Your task to perform on an android device: Add dell xps to the cart on amazon.com, then select checkout. Image 0: 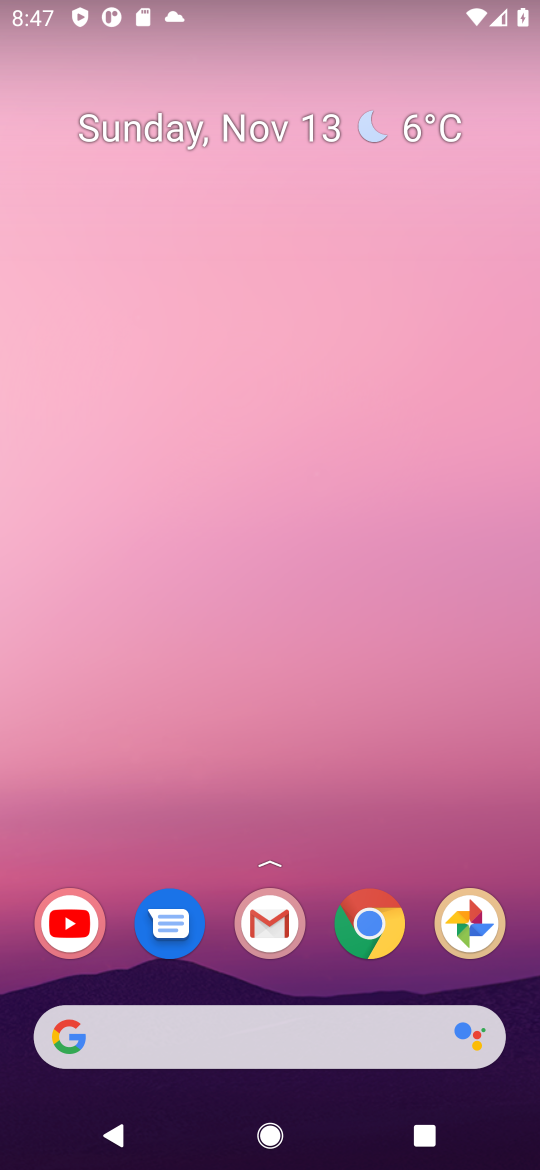
Step 0: click (346, 918)
Your task to perform on an android device: Add dell xps to the cart on amazon.com, then select checkout. Image 1: 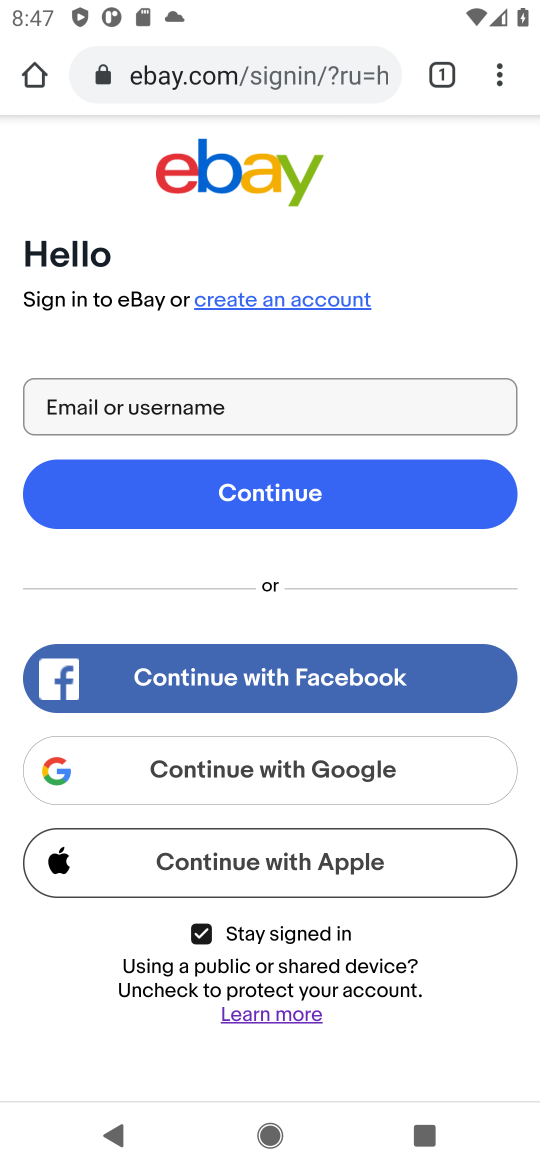
Step 1: click (198, 75)
Your task to perform on an android device: Add dell xps to the cart on amazon.com, then select checkout. Image 2: 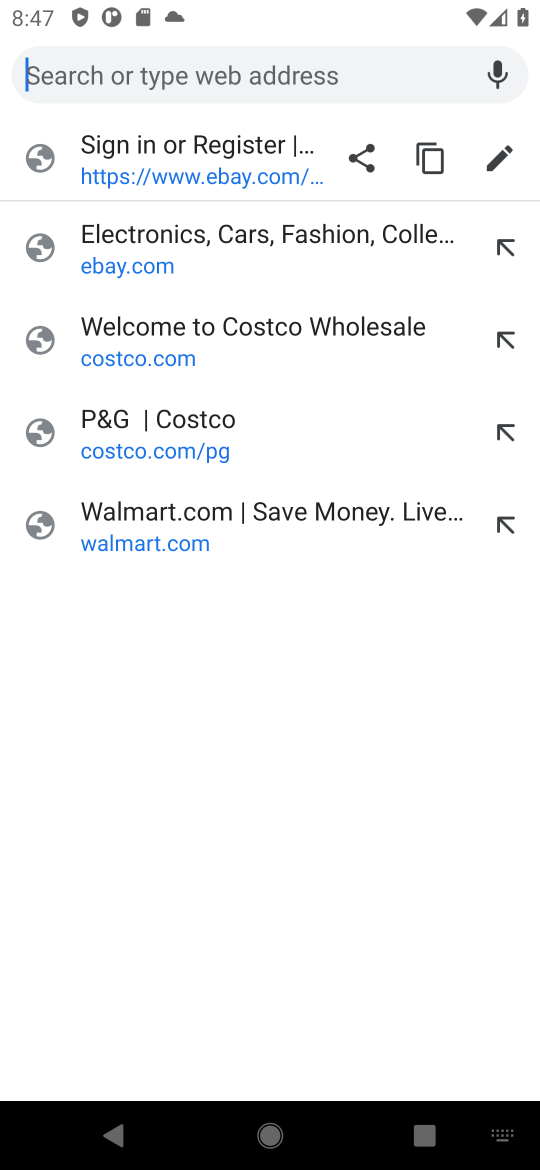
Step 2: type "amazon.com"
Your task to perform on an android device: Add dell xps to the cart on amazon.com, then select checkout. Image 3: 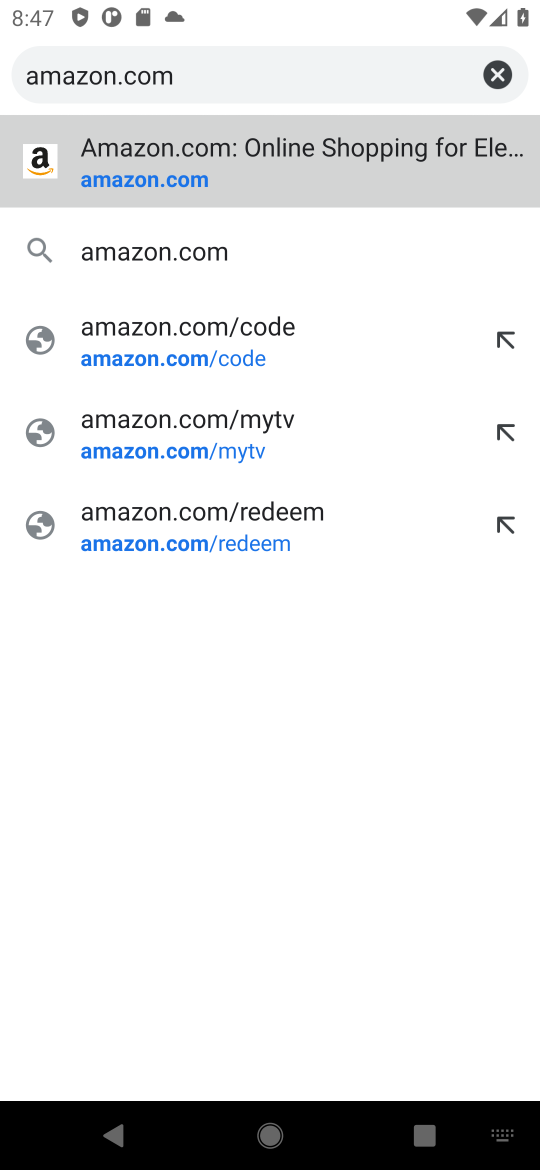
Step 3: press enter
Your task to perform on an android device: Add dell xps to the cart on amazon.com, then select checkout. Image 4: 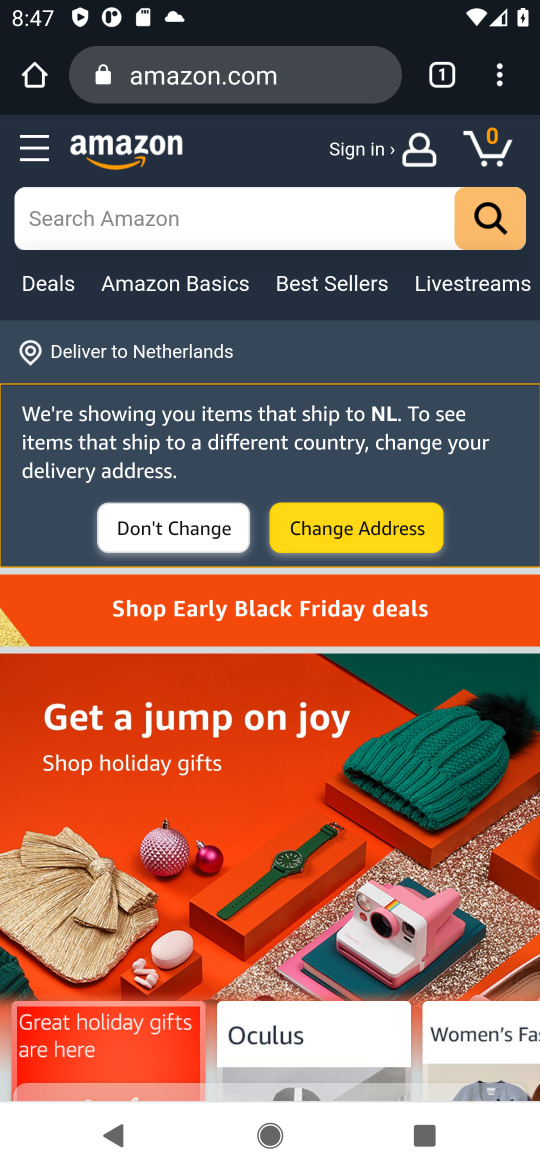
Step 4: click (190, 215)
Your task to perform on an android device: Add dell xps to the cart on amazon.com, then select checkout. Image 5: 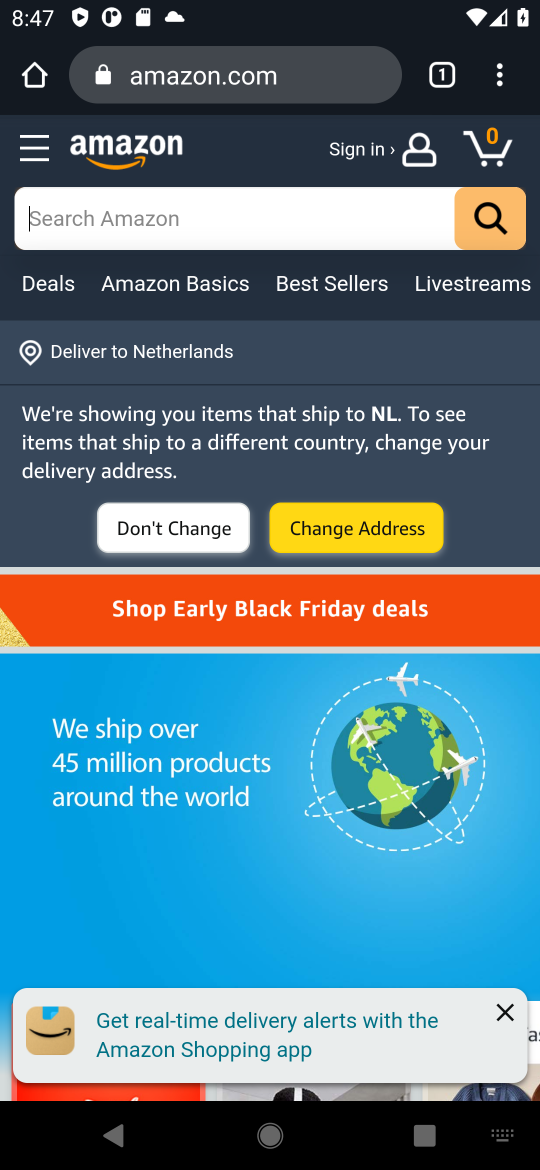
Step 5: type "dell xps"
Your task to perform on an android device: Add dell xps to the cart on amazon.com, then select checkout. Image 6: 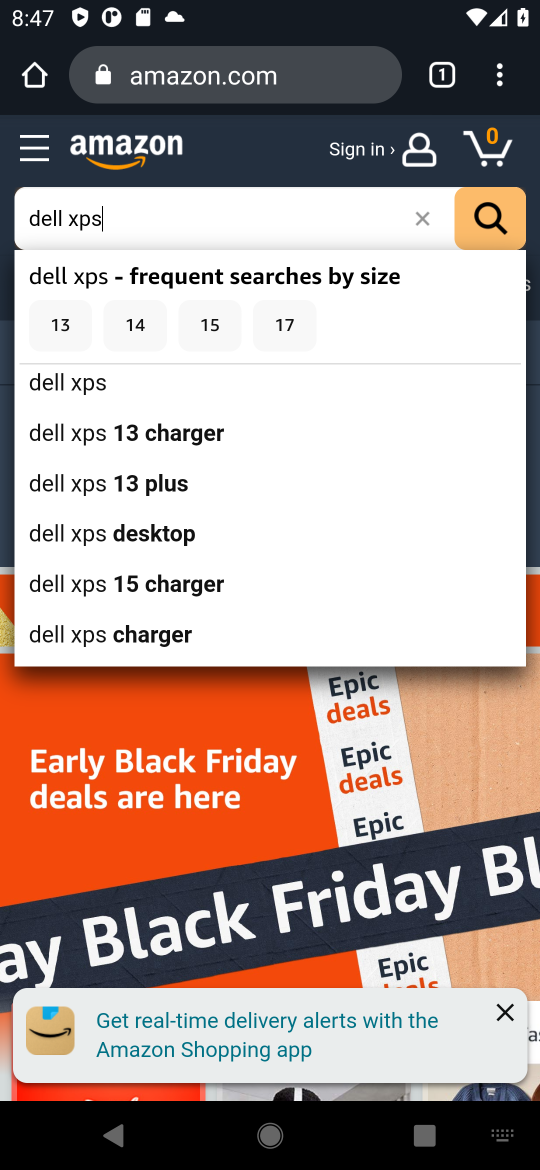
Step 6: press enter
Your task to perform on an android device: Add dell xps to the cart on amazon.com, then select checkout. Image 7: 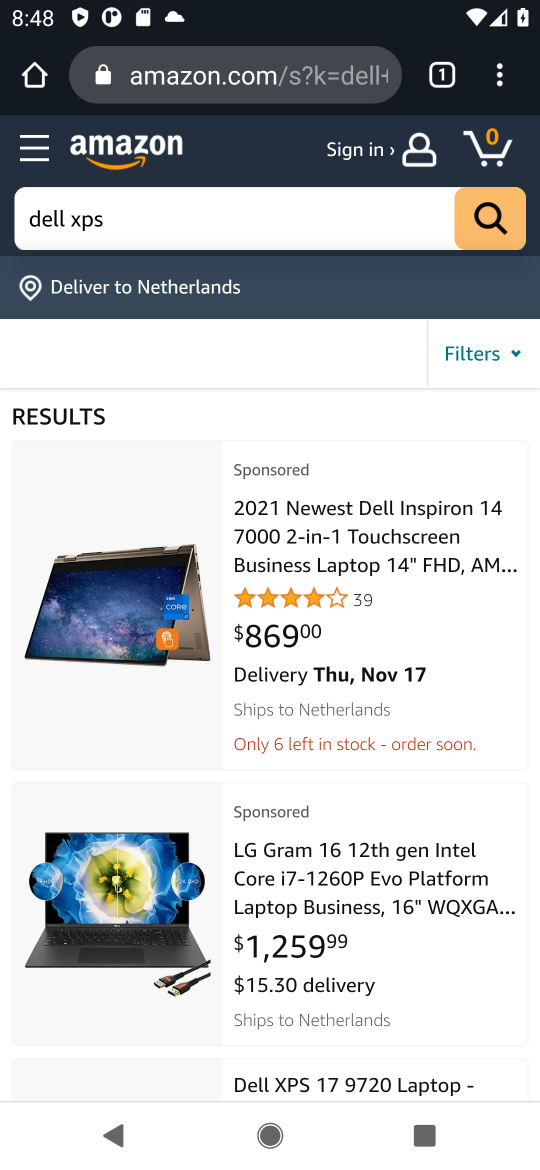
Step 7: drag from (349, 1081) to (360, 563)
Your task to perform on an android device: Add dell xps to the cart on amazon.com, then select checkout. Image 8: 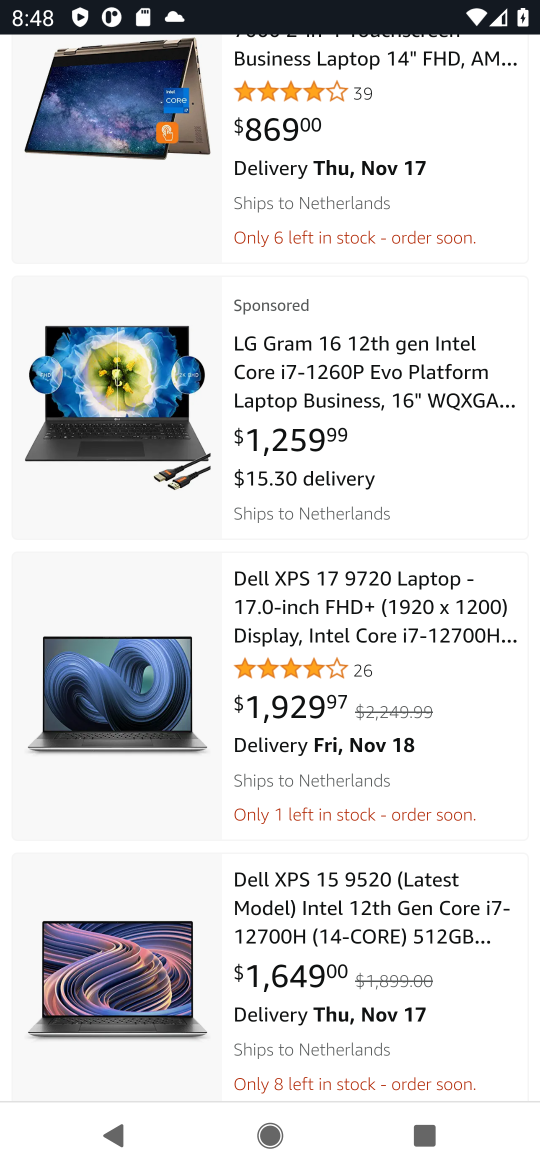
Step 8: click (158, 671)
Your task to perform on an android device: Add dell xps to the cart on amazon.com, then select checkout. Image 9: 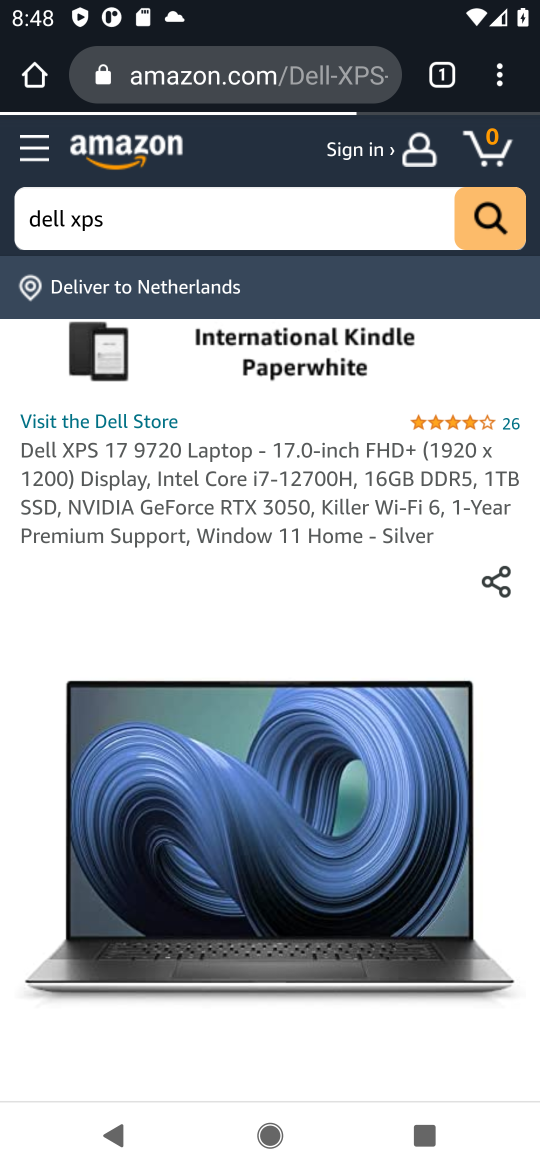
Step 9: drag from (222, 602) to (359, 241)
Your task to perform on an android device: Add dell xps to the cart on amazon.com, then select checkout. Image 10: 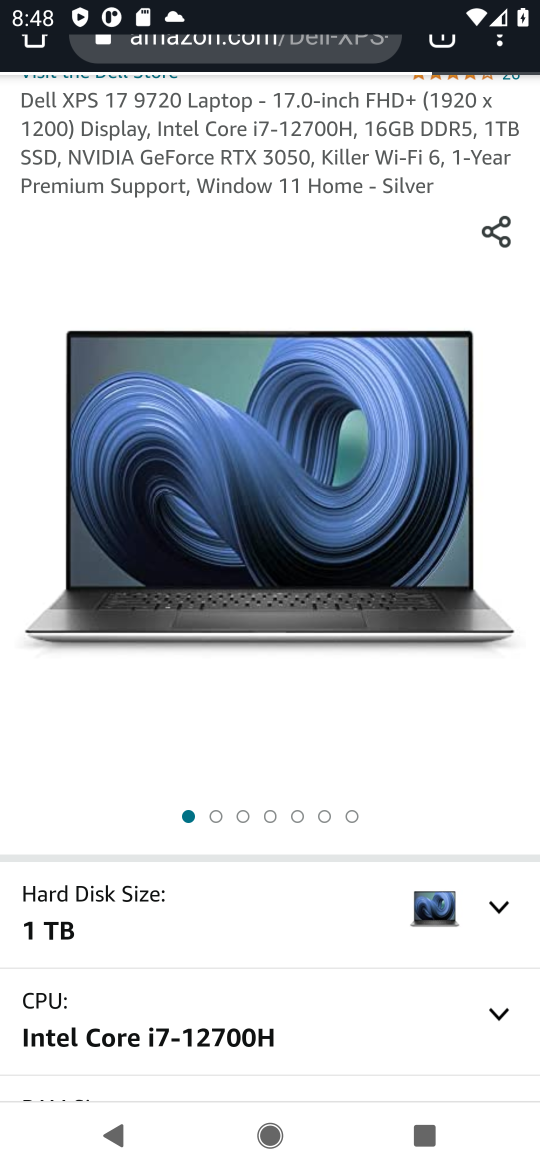
Step 10: drag from (291, 859) to (389, 435)
Your task to perform on an android device: Add dell xps to the cart on amazon.com, then select checkout. Image 11: 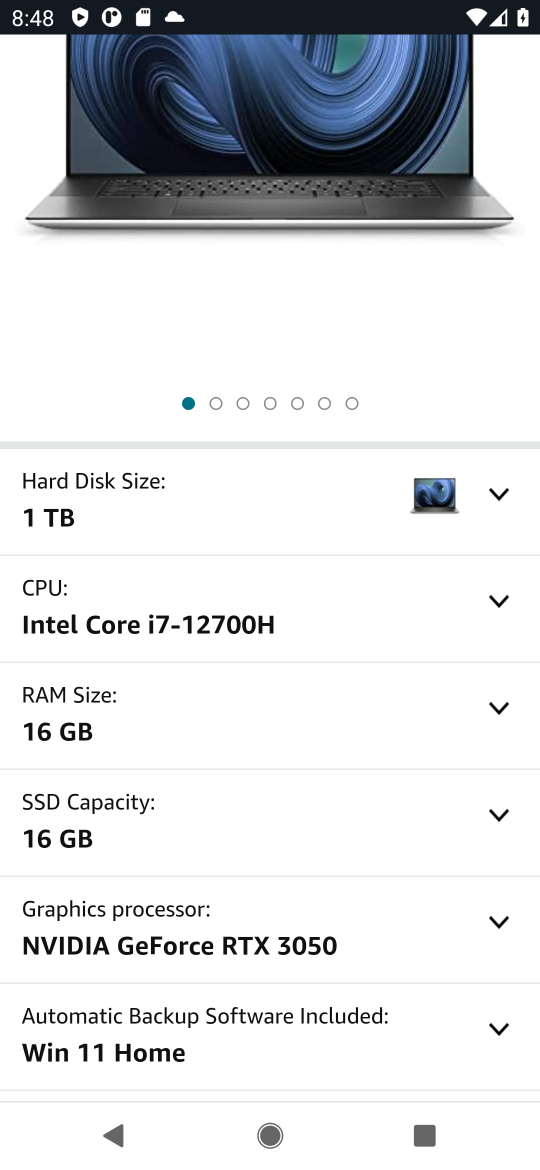
Step 11: drag from (305, 739) to (380, 361)
Your task to perform on an android device: Add dell xps to the cart on amazon.com, then select checkout. Image 12: 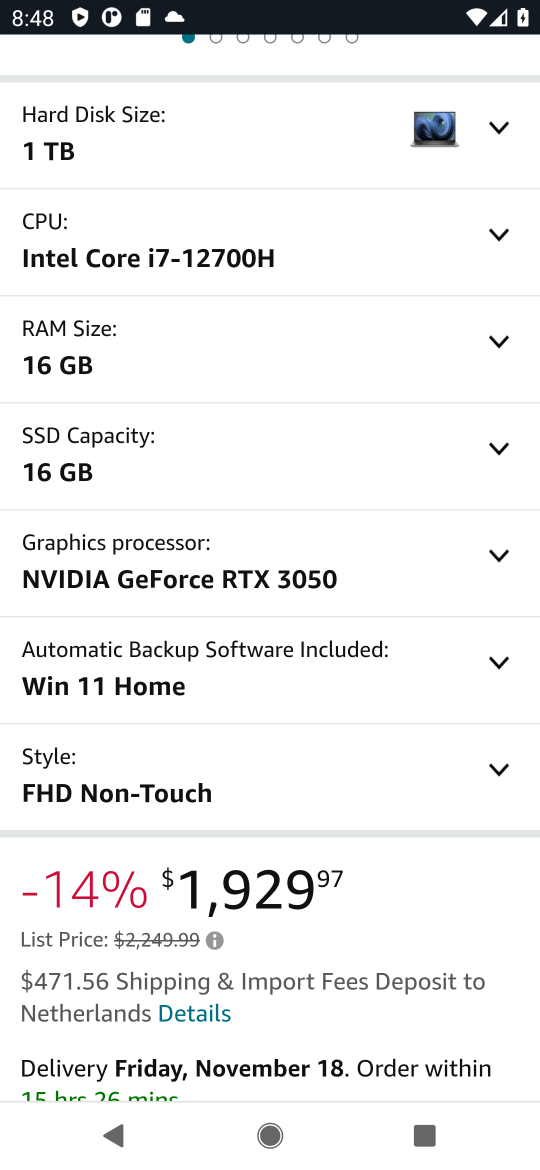
Step 12: drag from (334, 811) to (366, 375)
Your task to perform on an android device: Add dell xps to the cart on amazon.com, then select checkout. Image 13: 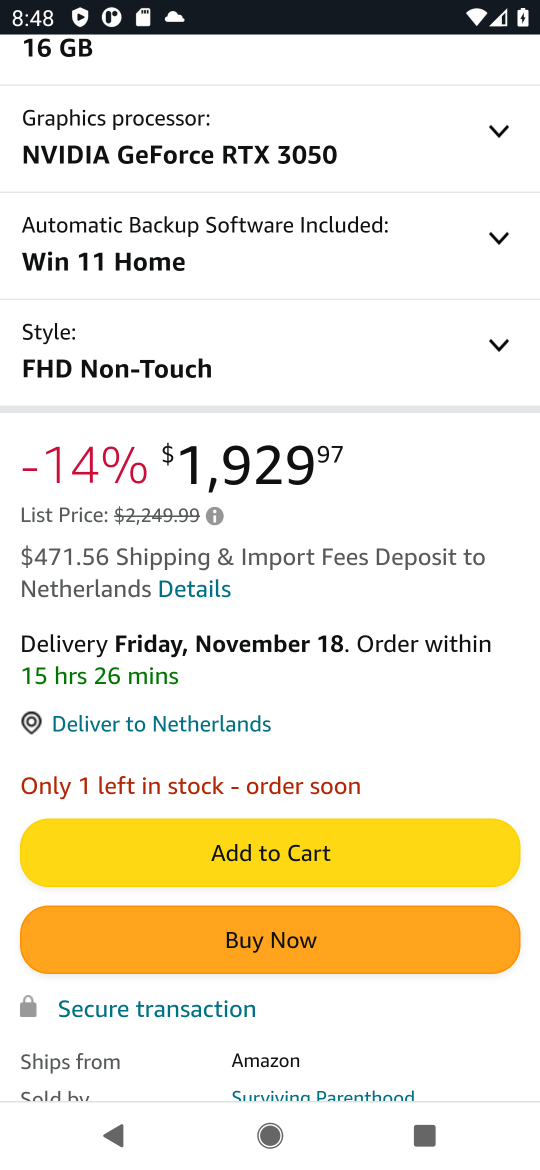
Step 13: click (262, 848)
Your task to perform on an android device: Add dell xps to the cart on amazon.com, then select checkout. Image 14: 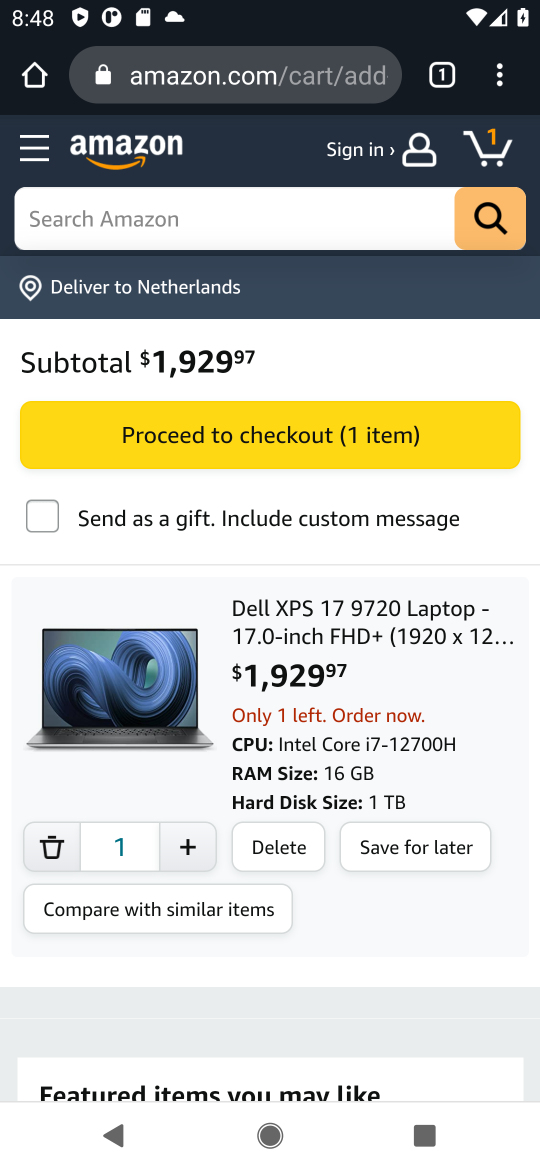
Step 14: click (320, 429)
Your task to perform on an android device: Add dell xps to the cart on amazon.com, then select checkout. Image 15: 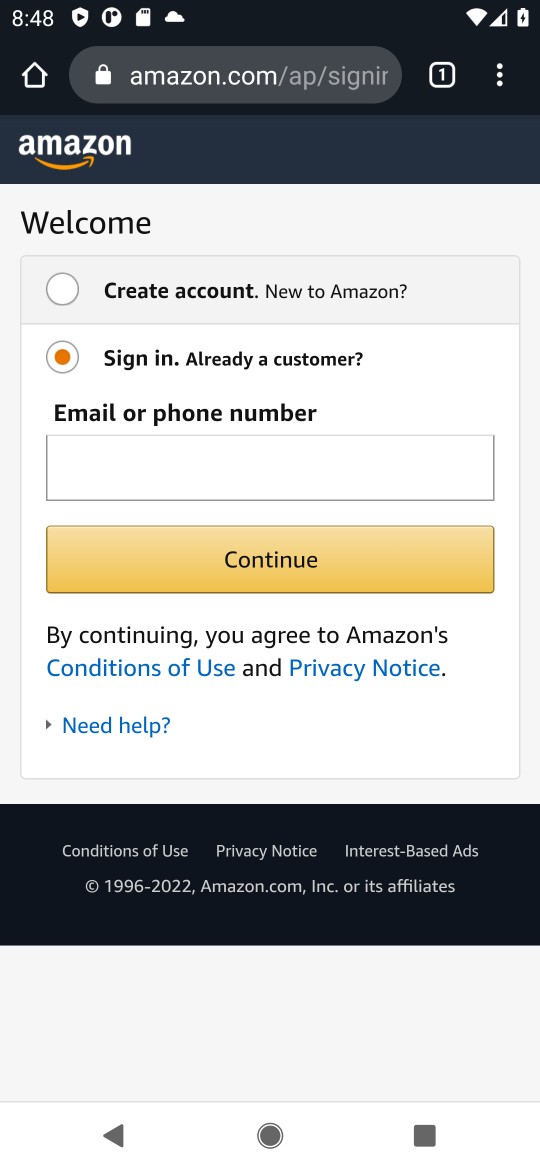
Step 15: task complete